Your task to perform on an android device: turn on wifi Image 0: 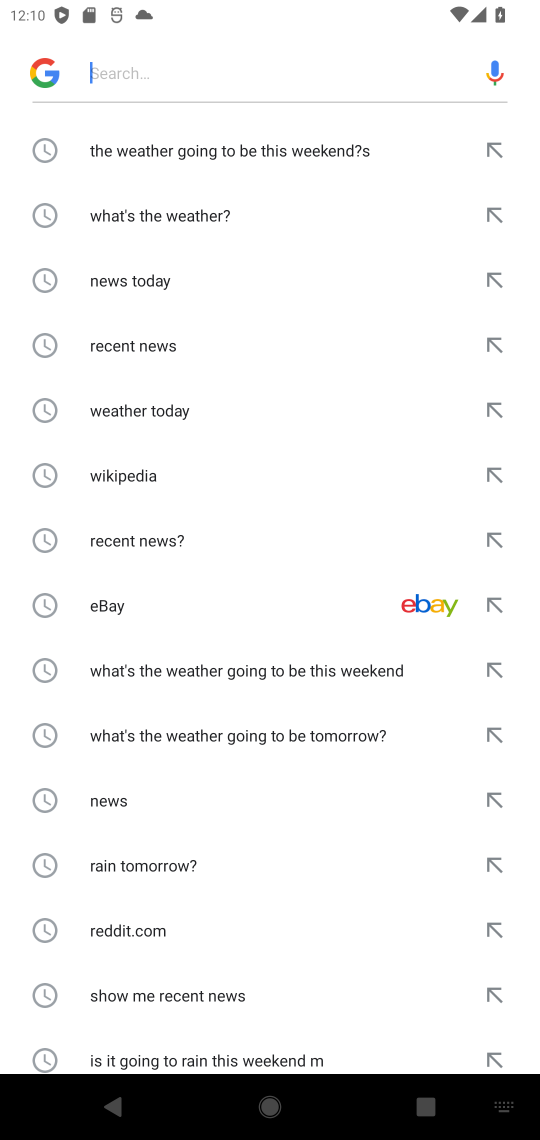
Step 0: press home button
Your task to perform on an android device: turn on wifi Image 1: 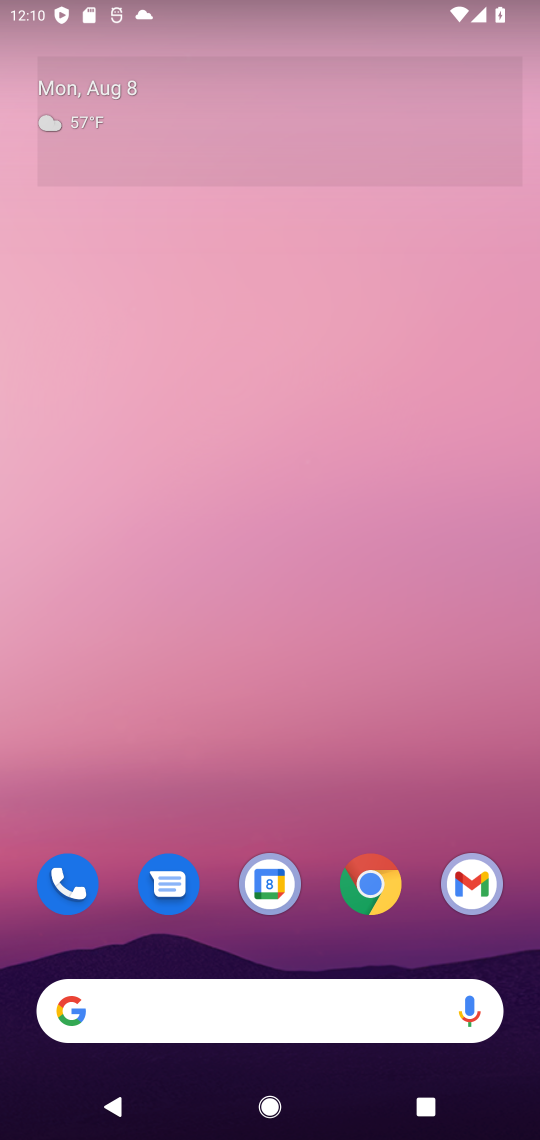
Step 1: drag from (76, 928) to (139, 202)
Your task to perform on an android device: turn on wifi Image 2: 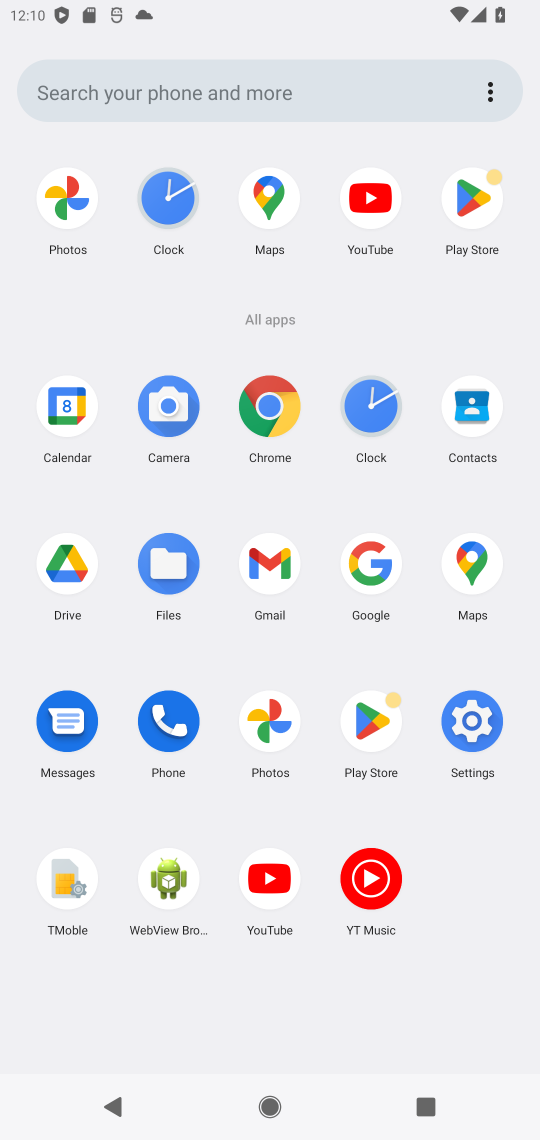
Step 2: click (476, 736)
Your task to perform on an android device: turn on wifi Image 3: 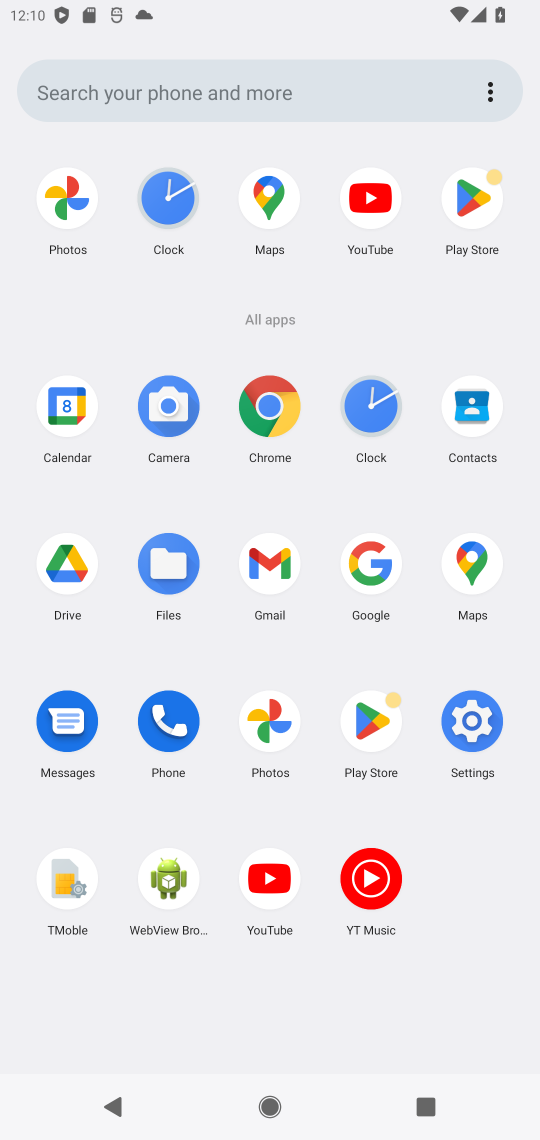
Step 3: click (476, 736)
Your task to perform on an android device: turn on wifi Image 4: 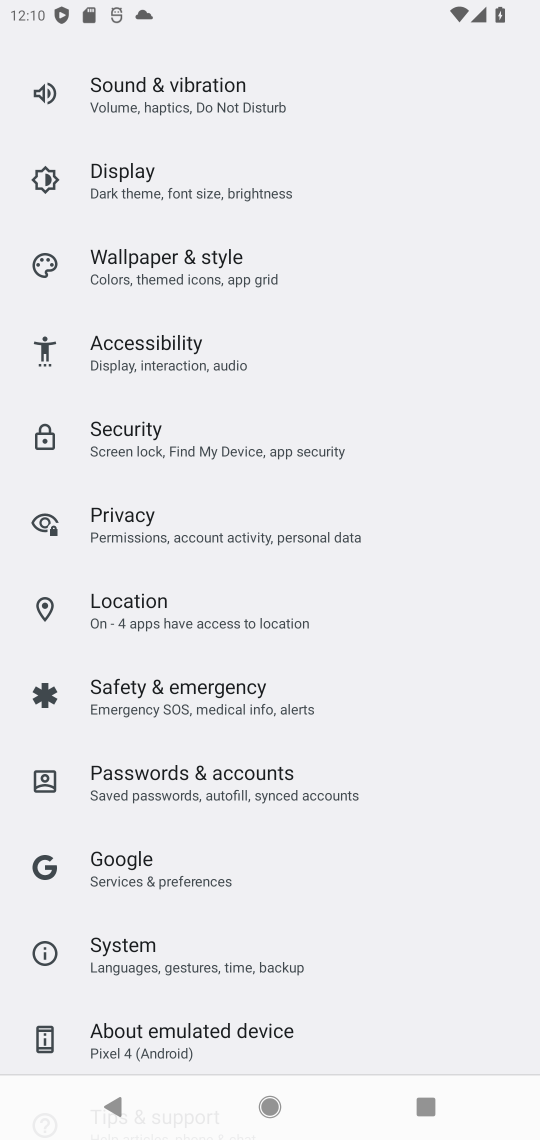
Step 4: drag from (335, 125) to (251, 1121)
Your task to perform on an android device: turn on wifi Image 5: 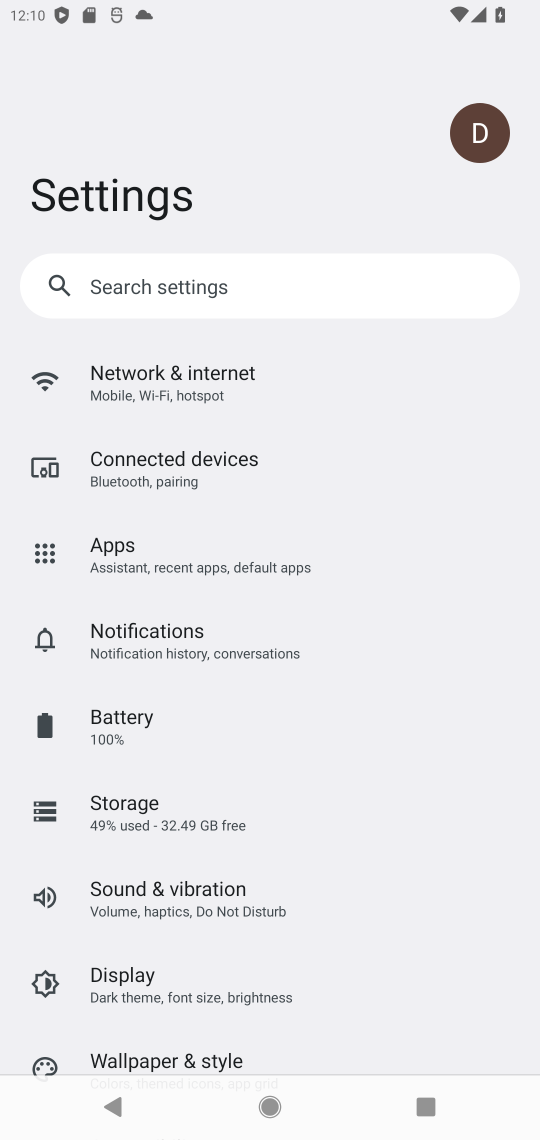
Step 5: click (339, 372)
Your task to perform on an android device: turn on wifi Image 6: 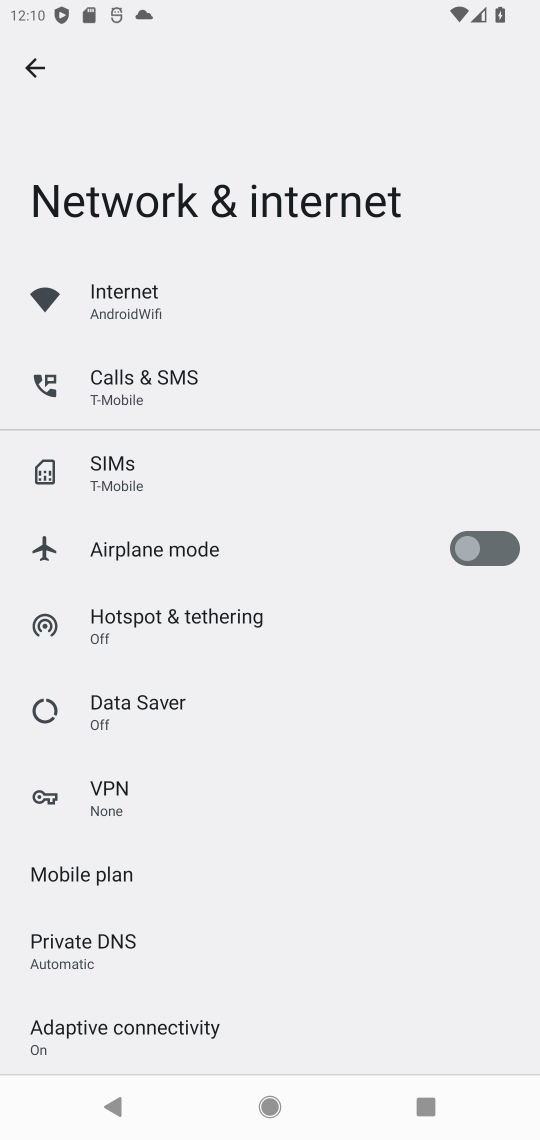
Step 6: click (311, 297)
Your task to perform on an android device: turn on wifi Image 7: 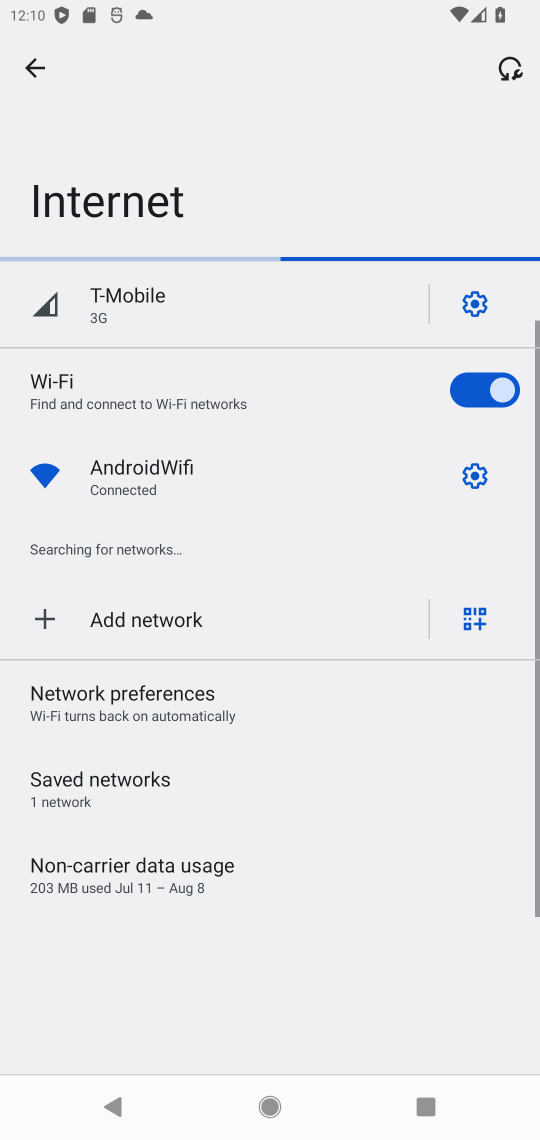
Step 7: task complete